Your task to perform on an android device: change your default location settings in chrome Image 0: 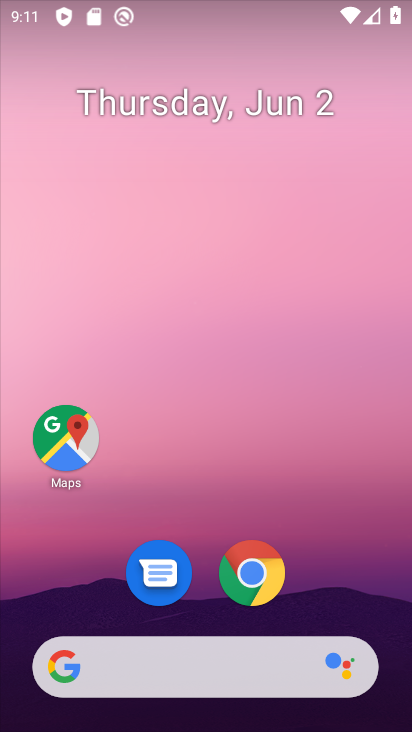
Step 0: drag from (344, 523) to (309, 28)
Your task to perform on an android device: change your default location settings in chrome Image 1: 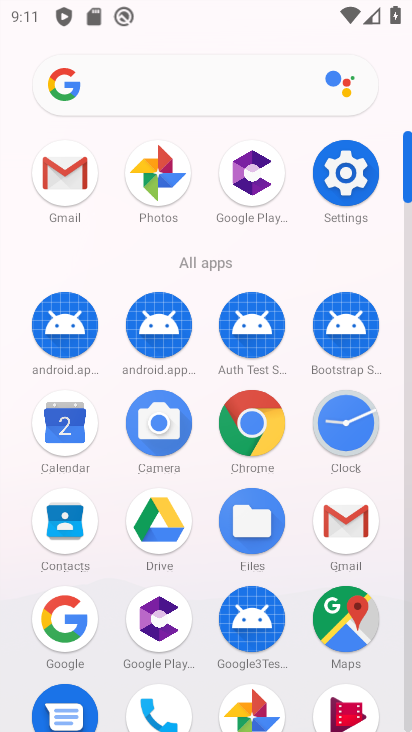
Step 1: click (249, 416)
Your task to perform on an android device: change your default location settings in chrome Image 2: 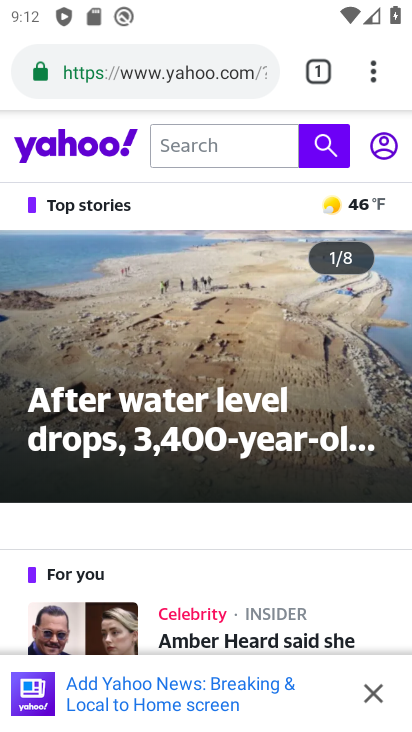
Step 2: drag from (372, 74) to (171, 579)
Your task to perform on an android device: change your default location settings in chrome Image 3: 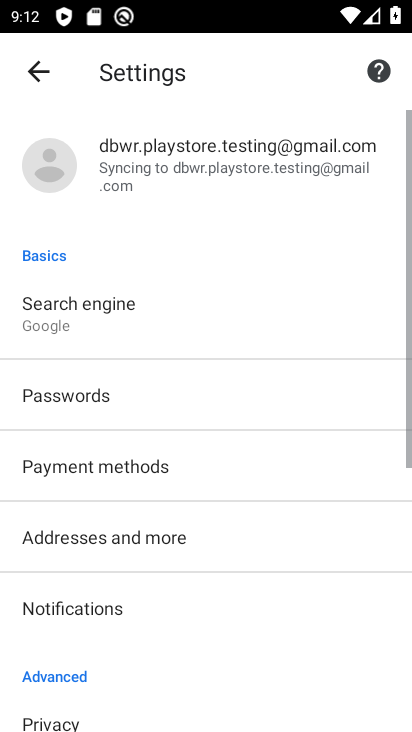
Step 3: drag from (164, 548) to (133, 141)
Your task to perform on an android device: change your default location settings in chrome Image 4: 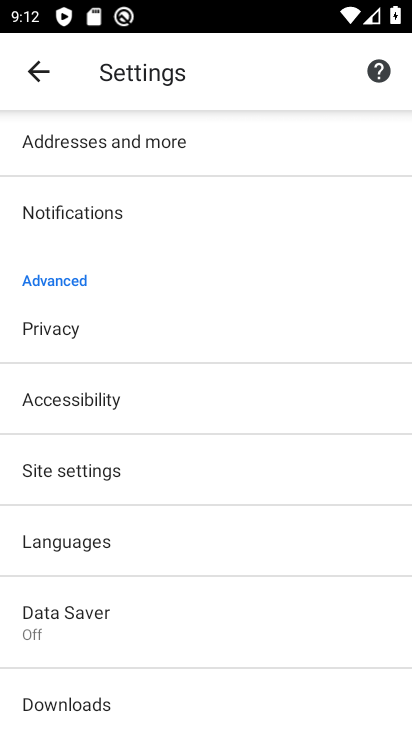
Step 4: drag from (162, 639) to (179, 414)
Your task to perform on an android device: change your default location settings in chrome Image 5: 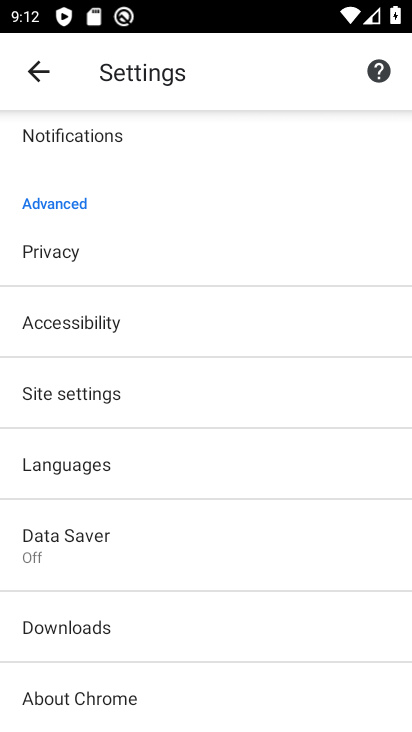
Step 5: click (79, 392)
Your task to perform on an android device: change your default location settings in chrome Image 6: 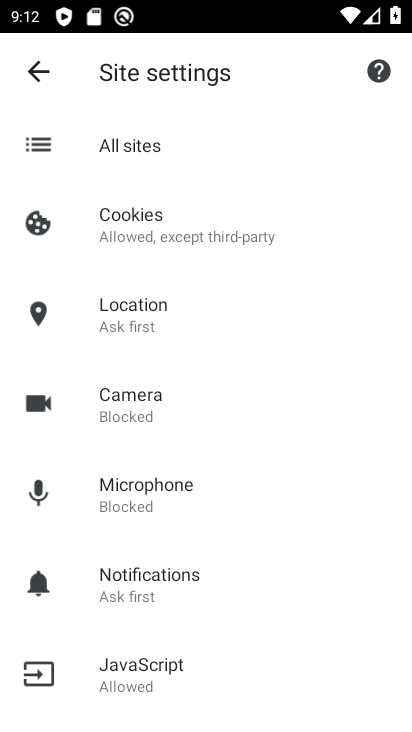
Step 6: click (143, 320)
Your task to perform on an android device: change your default location settings in chrome Image 7: 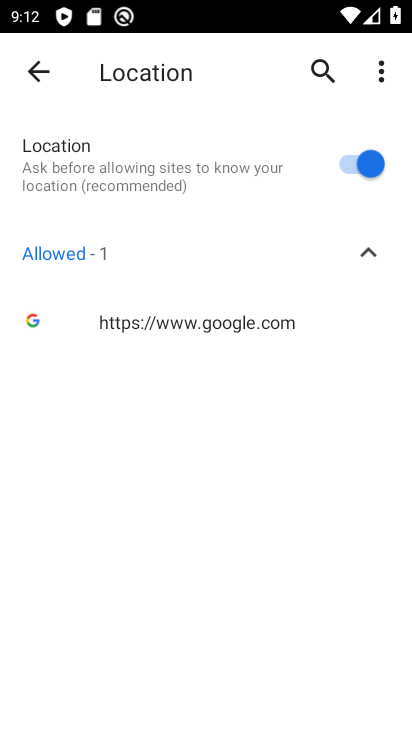
Step 7: click (362, 159)
Your task to perform on an android device: change your default location settings in chrome Image 8: 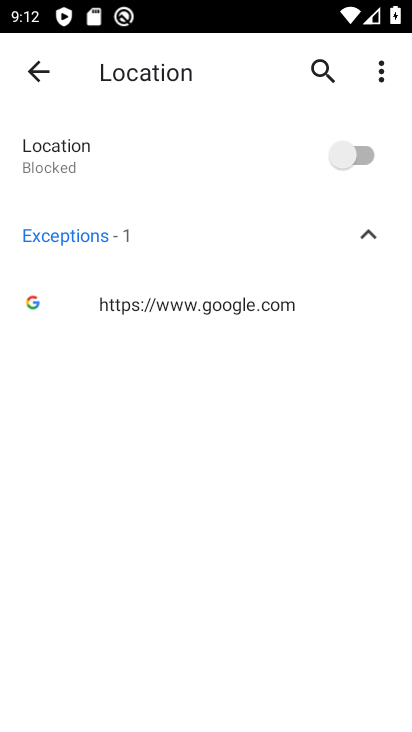
Step 8: task complete